Your task to perform on an android device: change keyboard looks Image 0: 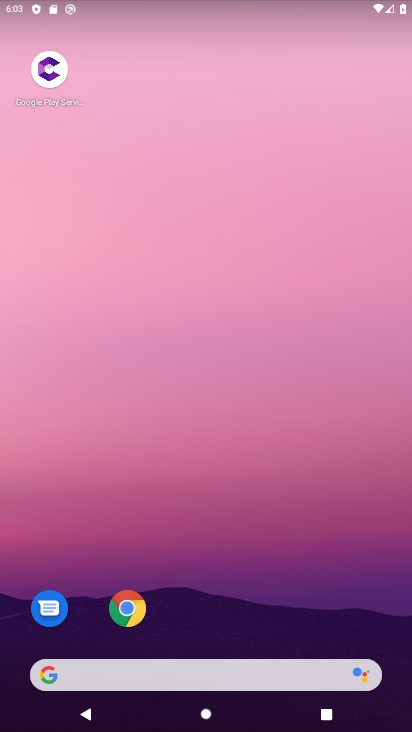
Step 0: drag from (217, 624) to (264, 31)
Your task to perform on an android device: change keyboard looks Image 1: 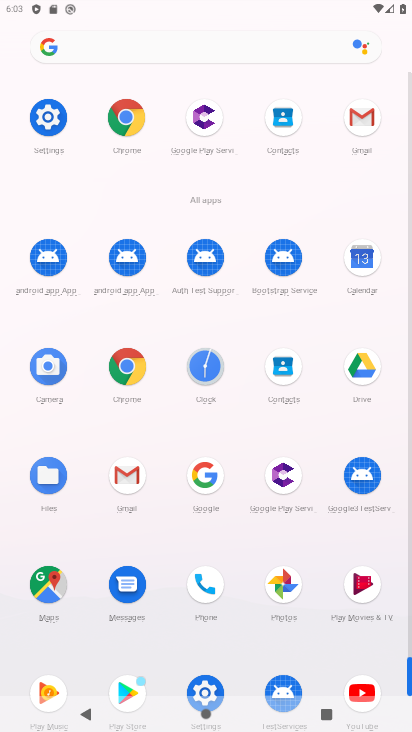
Step 1: click (49, 118)
Your task to perform on an android device: change keyboard looks Image 2: 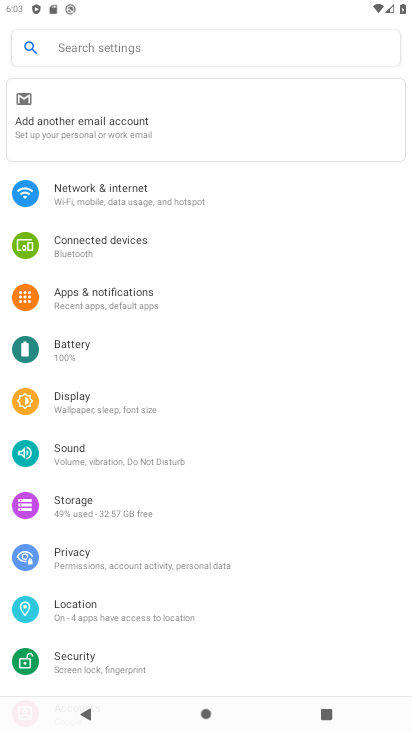
Step 2: drag from (118, 574) to (166, 304)
Your task to perform on an android device: change keyboard looks Image 3: 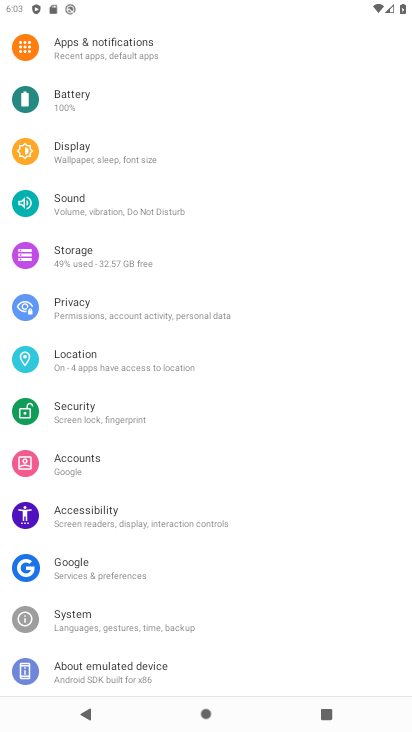
Step 3: click (99, 621)
Your task to perform on an android device: change keyboard looks Image 4: 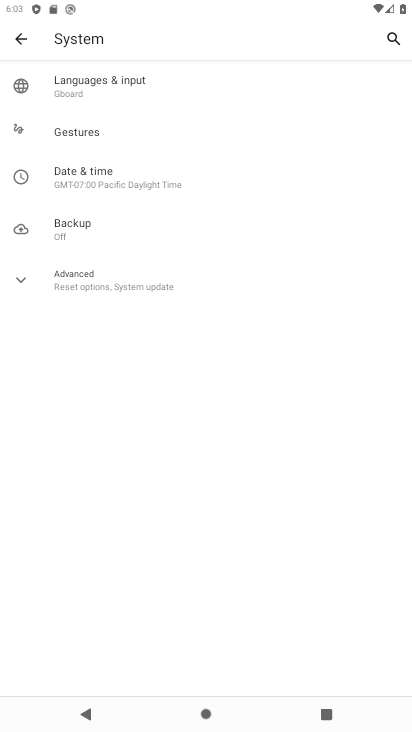
Step 4: click (126, 480)
Your task to perform on an android device: change keyboard looks Image 5: 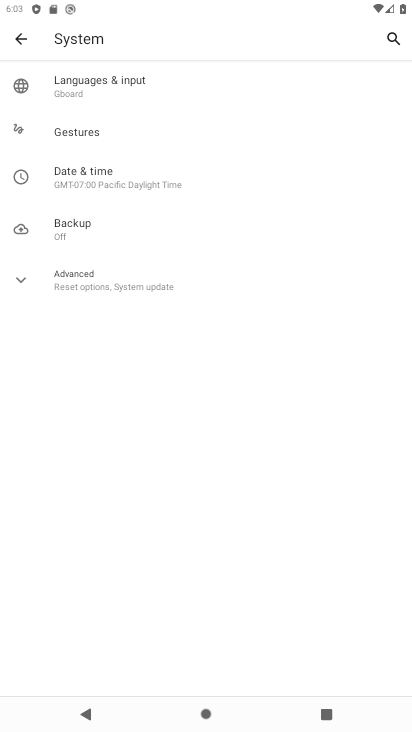
Step 5: click (121, 78)
Your task to perform on an android device: change keyboard looks Image 6: 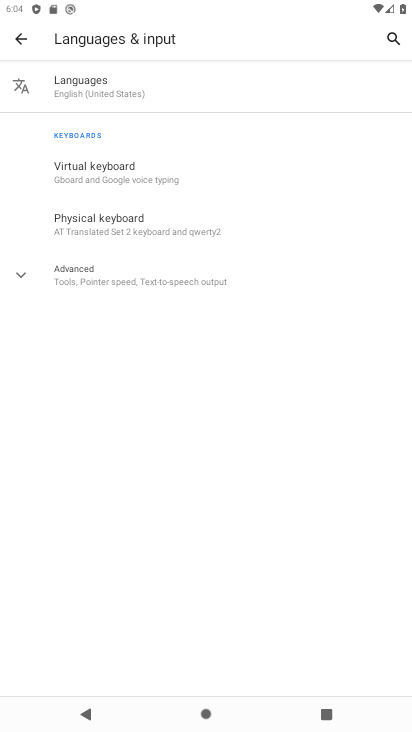
Step 6: click (119, 178)
Your task to perform on an android device: change keyboard looks Image 7: 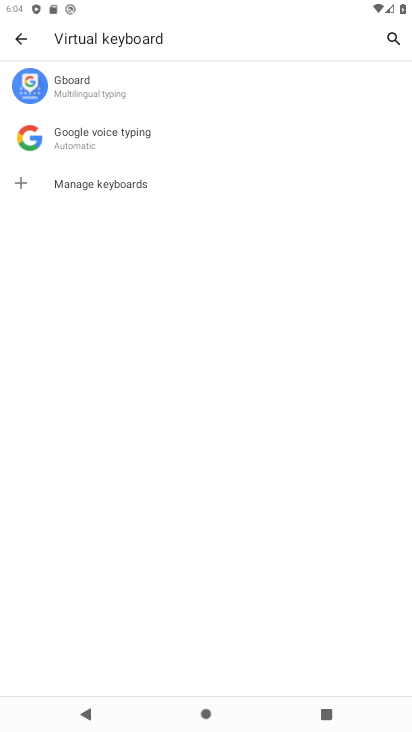
Step 7: click (89, 87)
Your task to perform on an android device: change keyboard looks Image 8: 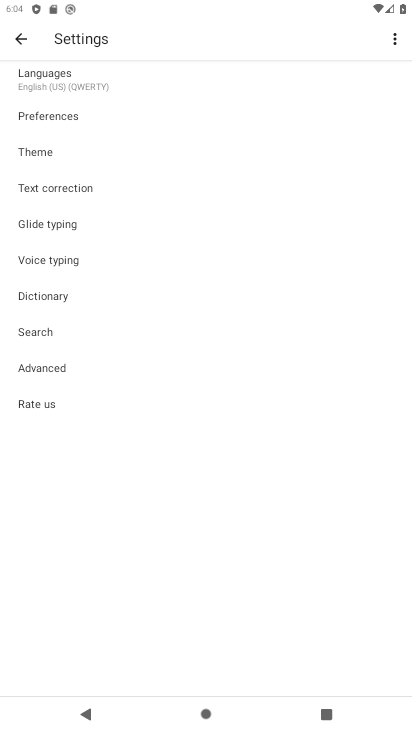
Step 8: click (30, 155)
Your task to perform on an android device: change keyboard looks Image 9: 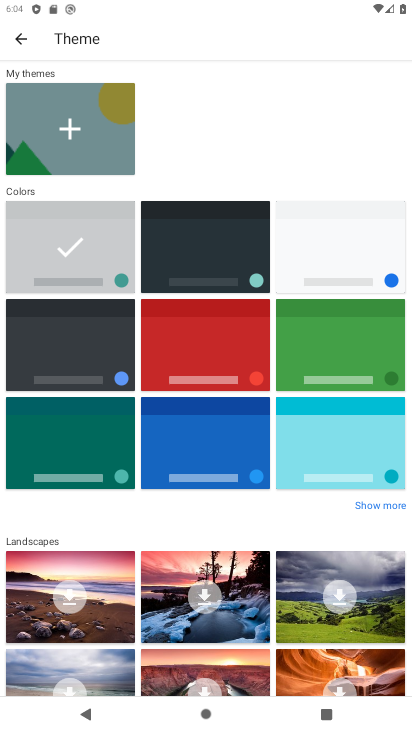
Step 9: click (196, 367)
Your task to perform on an android device: change keyboard looks Image 10: 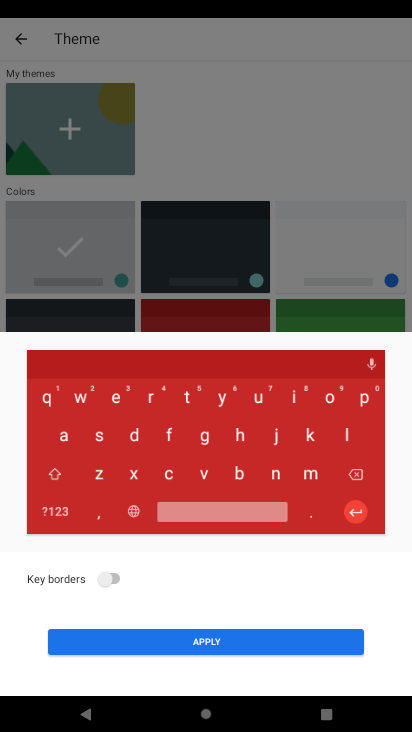
Step 10: click (281, 650)
Your task to perform on an android device: change keyboard looks Image 11: 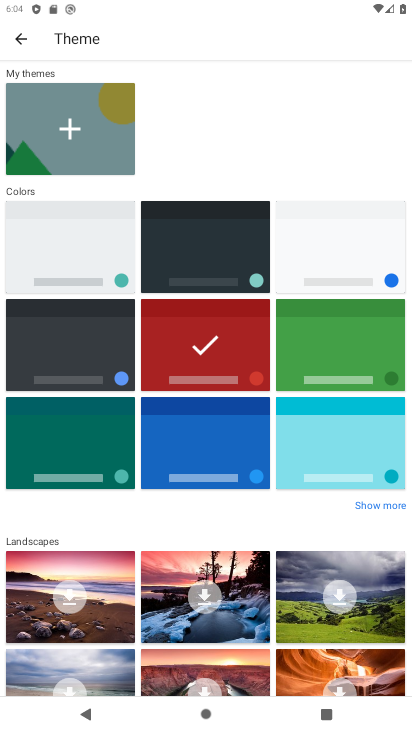
Step 11: task complete